Your task to perform on an android device: turn on data saver in the chrome app Image 0: 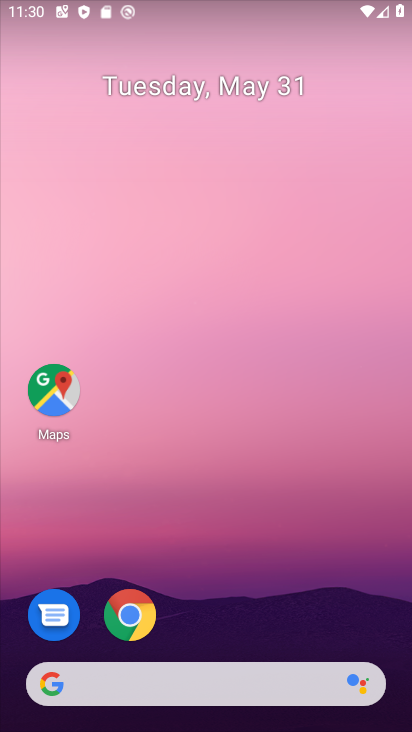
Step 0: task complete